Your task to perform on an android device: turn off location history Image 0: 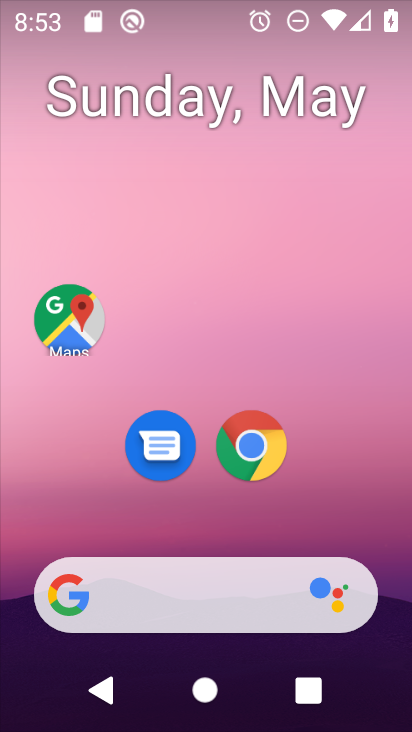
Step 0: drag from (255, 378) to (272, 164)
Your task to perform on an android device: turn off location history Image 1: 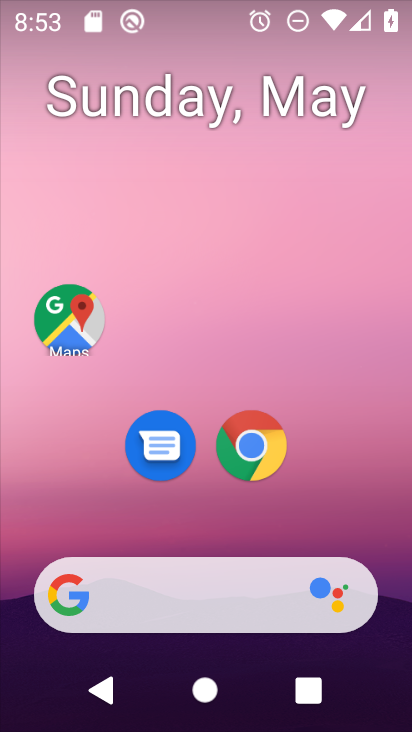
Step 1: drag from (231, 590) to (306, 144)
Your task to perform on an android device: turn off location history Image 2: 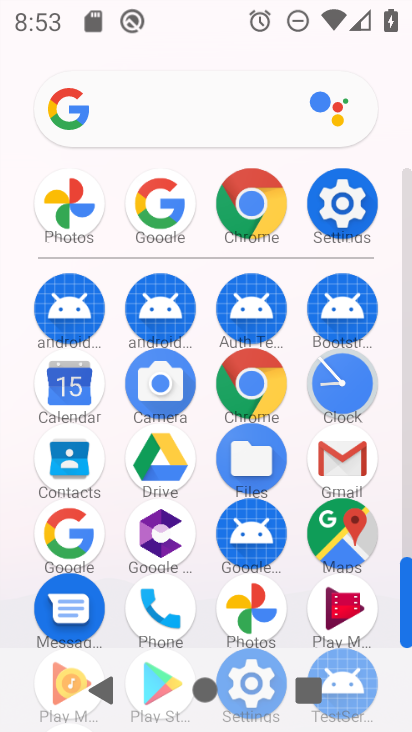
Step 2: click (365, 225)
Your task to perform on an android device: turn off location history Image 3: 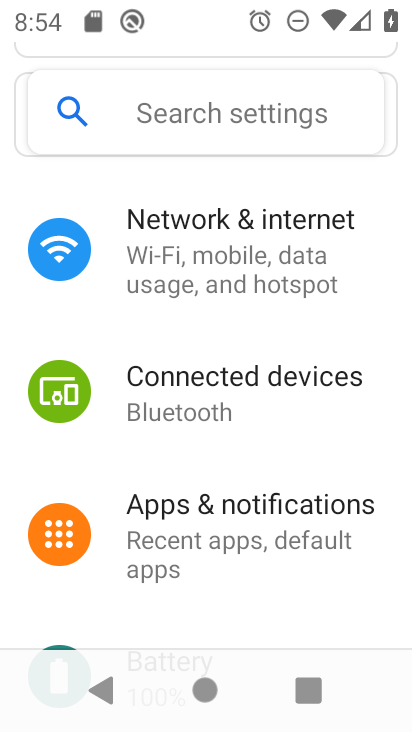
Step 3: drag from (215, 491) to (254, 205)
Your task to perform on an android device: turn off location history Image 4: 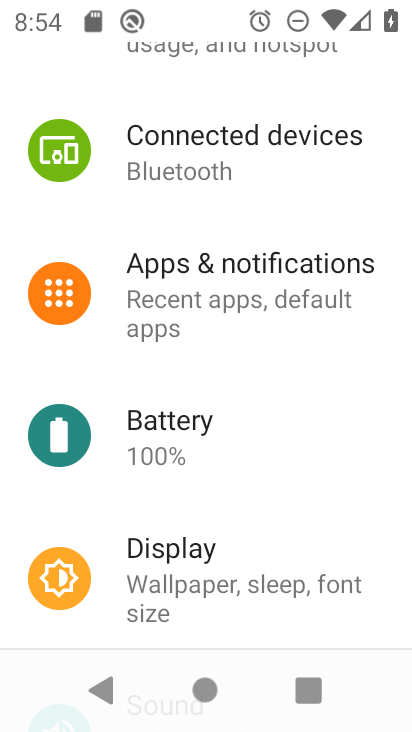
Step 4: drag from (235, 420) to (274, 210)
Your task to perform on an android device: turn off location history Image 5: 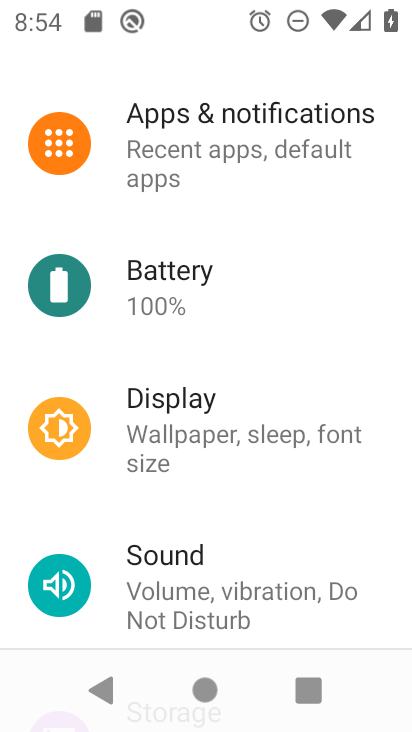
Step 5: drag from (229, 528) to (271, 229)
Your task to perform on an android device: turn off location history Image 6: 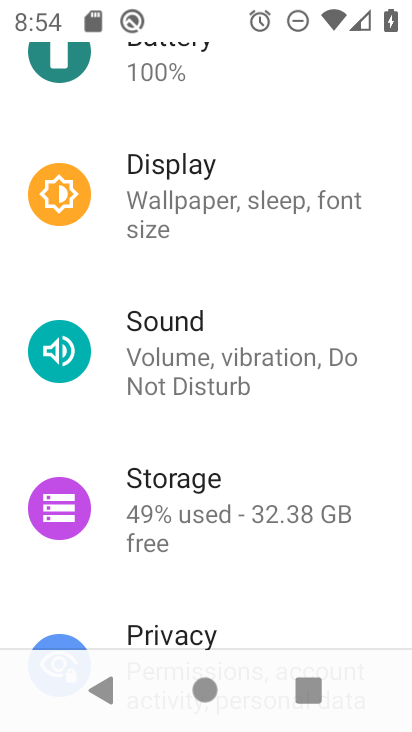
Step 6: drag from (171, 602) to (215, 148)
Your task to perform on an android device: turn off location history Image 7: 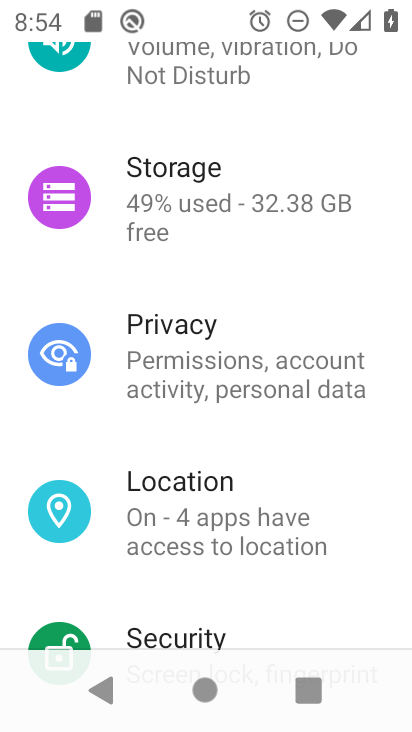
Step 7: click (204, 538)
Your task to perform on an android device: turn off location history Image 8: 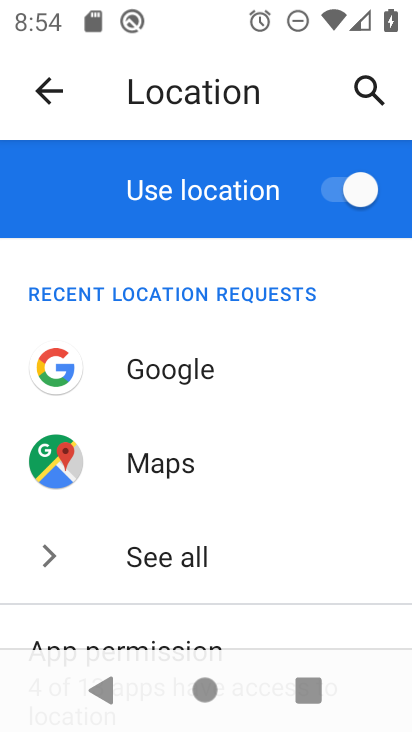
Step 8: drag from (286, 524) to (323, 149)
Your task to perform on an android device: turn off location history Image 9: 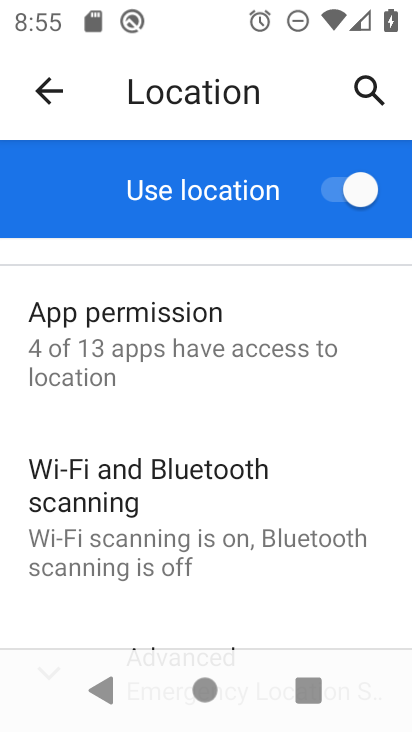
Step 9: drag from (222, 393) to (281, 85)
Your task to perform on an android device: turn off location history Image 10: 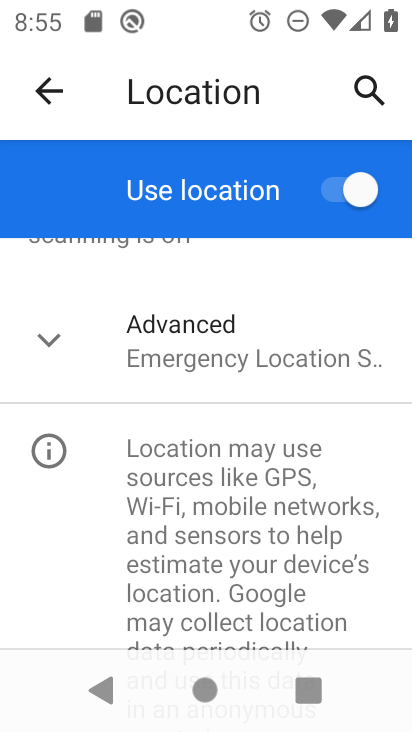
Step 10: click (222, 349)
Your task to perform on an android device: turn off location history Image 11: 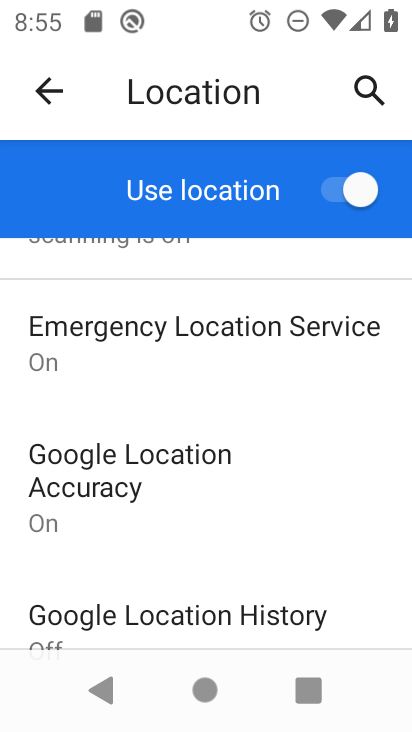
Step 11: drag from (243, 553) to (295, 214)
Your task to perform on an android device: turn off location history Image 12: 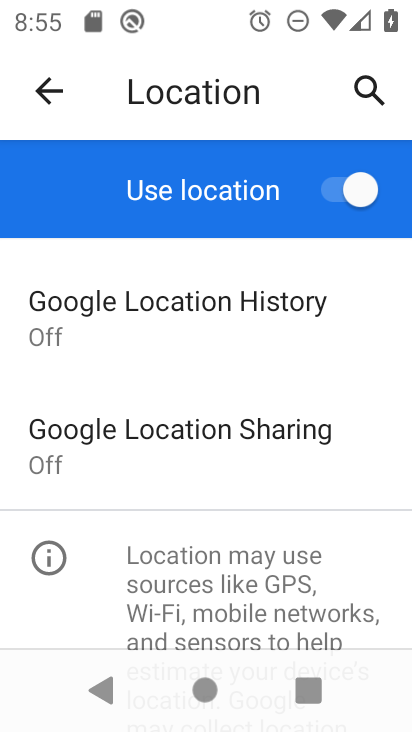
Step 12: click (260, 325)
Your task to perform on an android device: turn off location history Image 13: 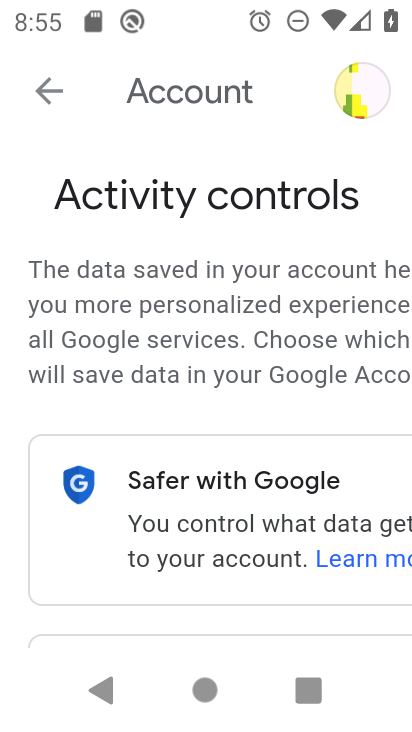
Step 13: task complete